Your task to perform on an android device: Open Chrome and go to the settings page Image 0: 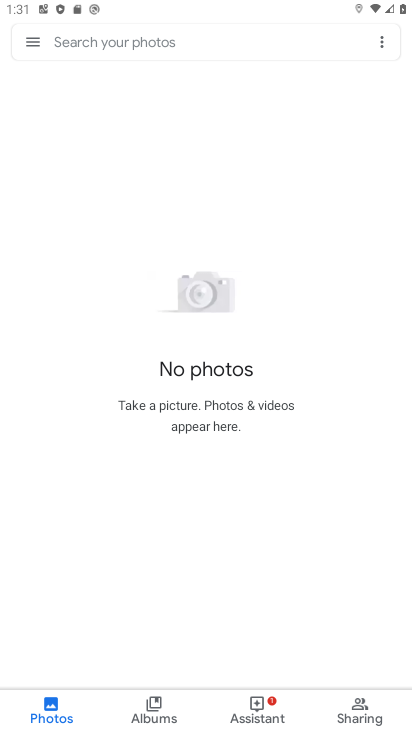
Step 0: press home button
Your task to perform on an android device: Open Chrome and go to the settings page Image 1: 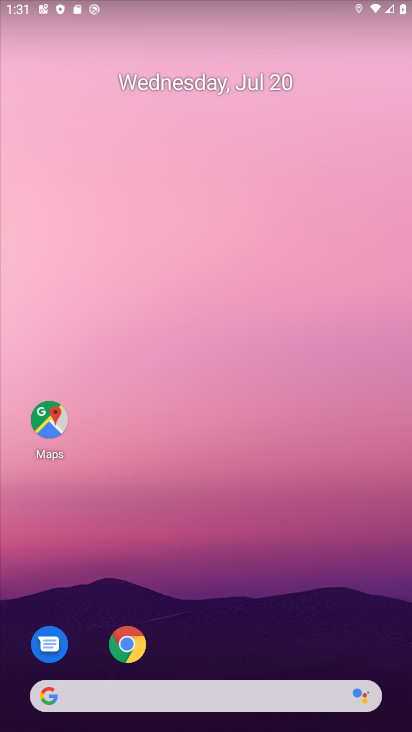
Step 1: click (127, 647)
Your task to perform on an android device: Open Chrome and go to the settings page Image 2: 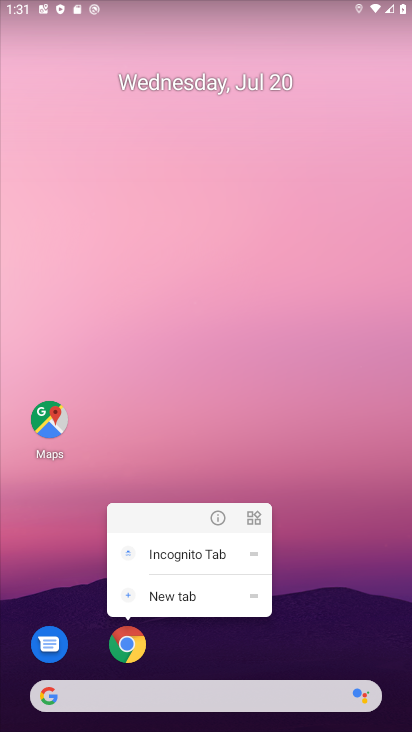
Step 2: click (127, 647)
Your task to perform on an android device: Open Chrome and go to the settings page Image 3: 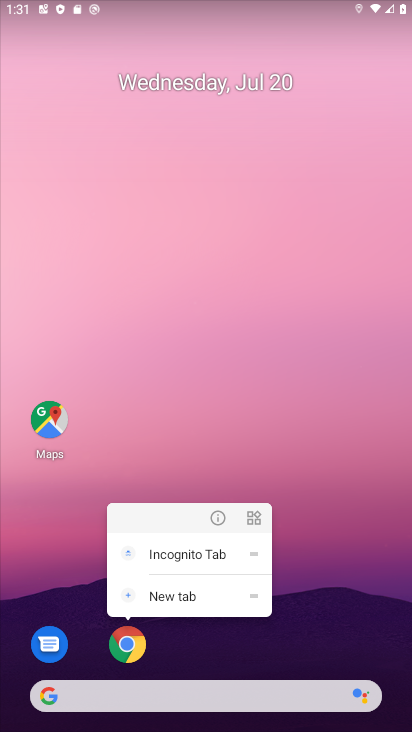
Step 3: drag from (354, 637) to (286, 0)
Your task to perform on an android device: Open Chrome and go to the settings page Image 4: 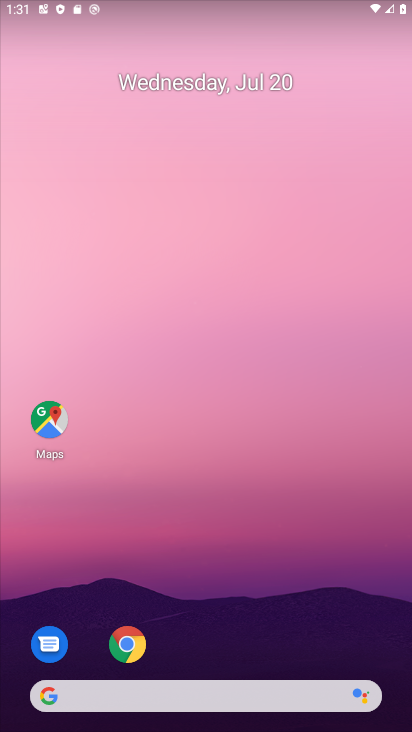
Step 4: drag from (269, 627) to (273, 0)
Your task to perform on an android device: Open Chrome and go to the settings page Image 5: 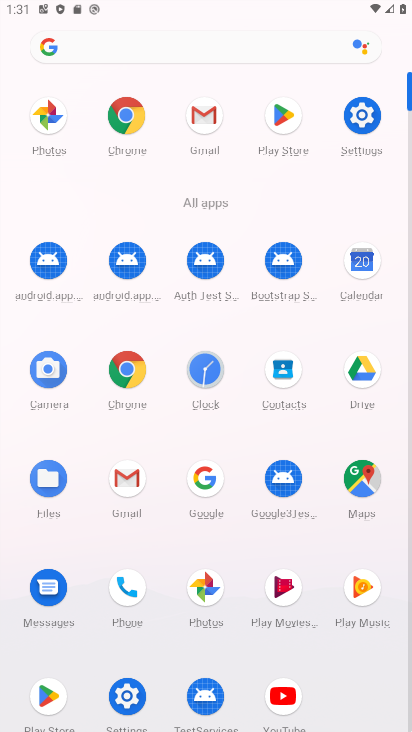
Step 5: click (123, 117)
Your task to perform on an android device: Open Chrome and go to the settings page Image 6: 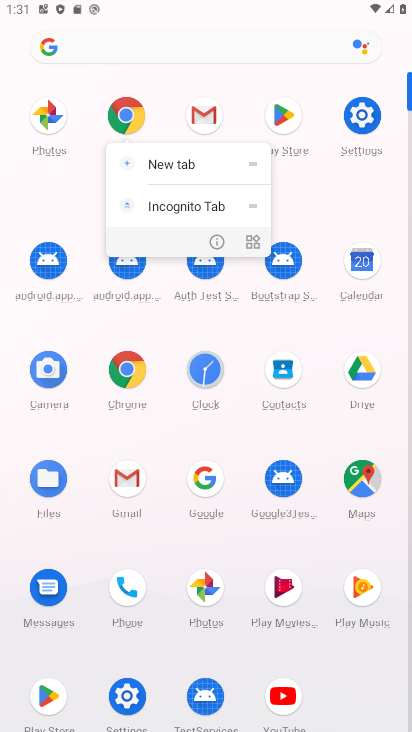
Step 6: click (123, 117)
Your task to perform on an android device: Open Chrome and go to the settings page Image 7: 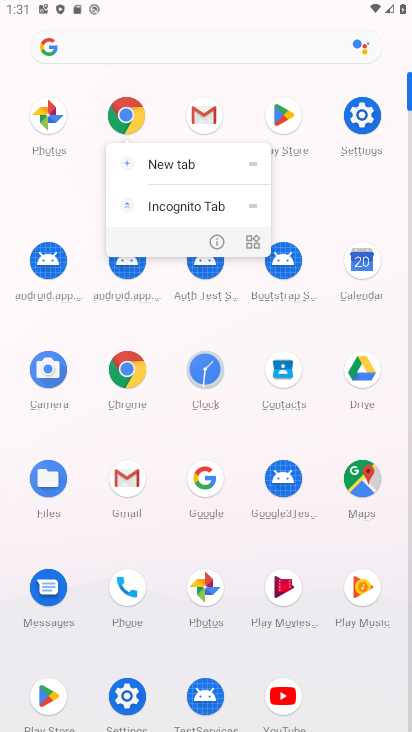
Step 7: click (123, 117)
Your task to perform on an android device: Open Chrome and go to the settings page Image 8: 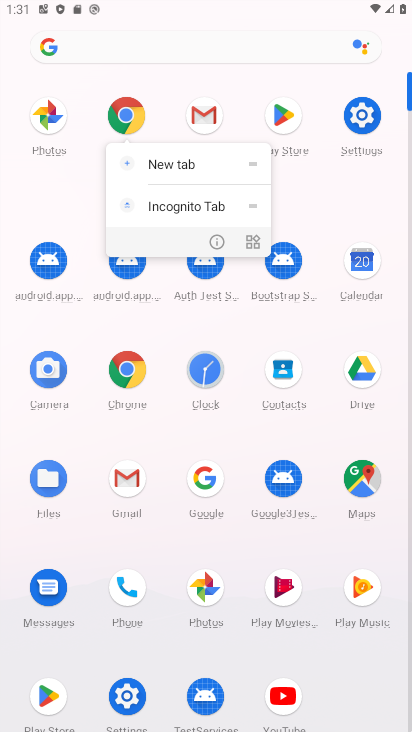
Step 8: click (137, 111)
Your task to perform on an android device: Open Chrome and go to the settings page Image 9: 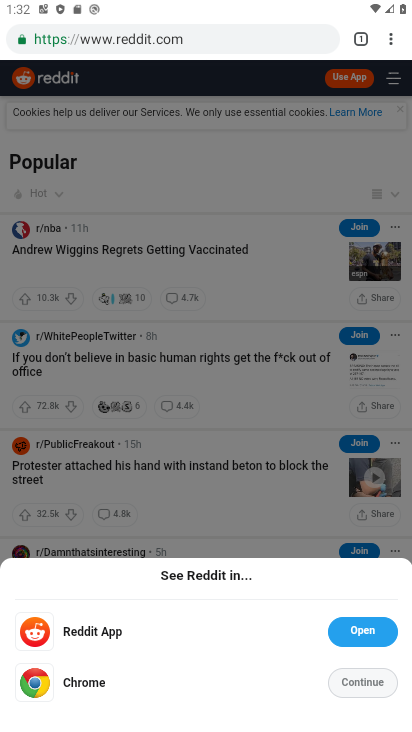
Step 9: task complete